Your task to perform on an android device: find snoozed emails in the gmail app Image 0: 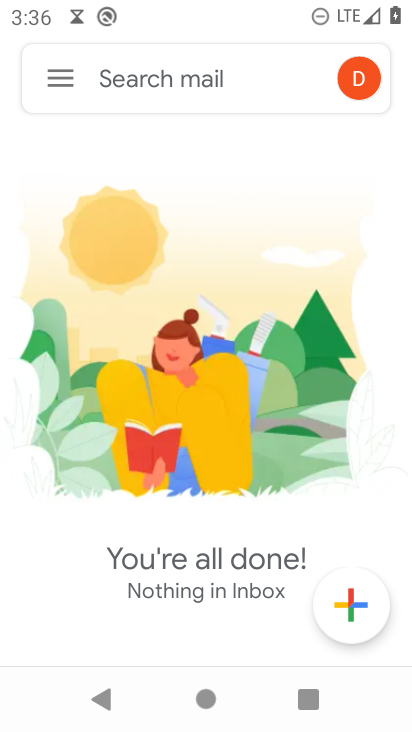
Step 0: press home button
Your task to perform on an android device: find snoozed emails in the gmail app Image 1: 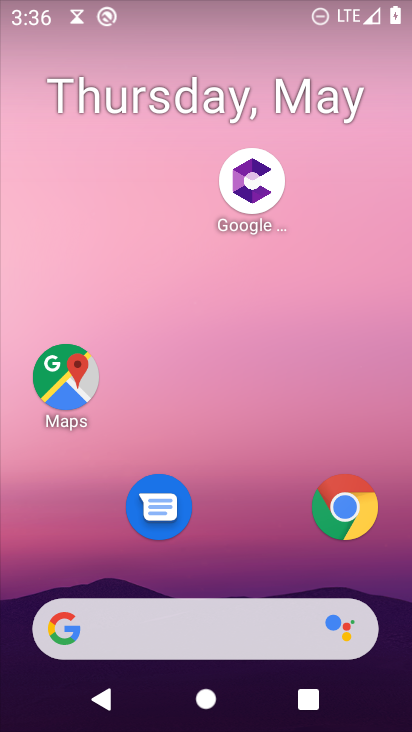
Step 1: drag from (209, 558) to (313, 9)
Your task to perform on an android device: find snoozed emails in the gmail app Image 2: 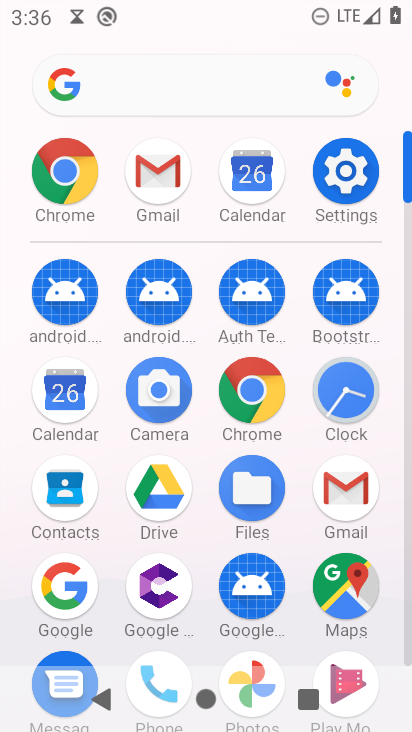
Step 2: click (159, 195)
Your task to perform on an android device: find snoozed emails in the gmail app Image 3: 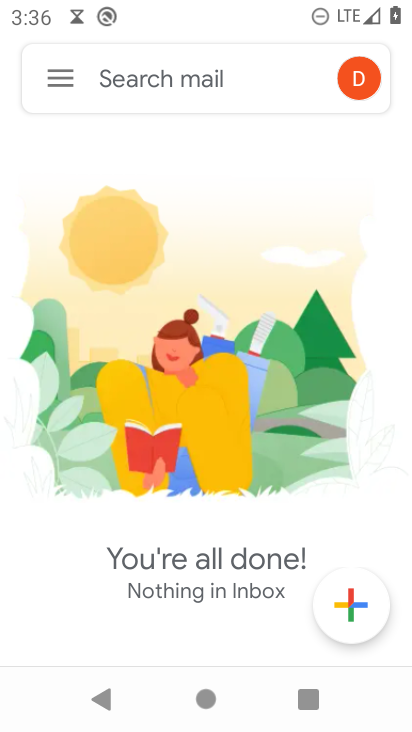
Step 3: click (76, 95)
Your task to perform on an android device: find snoozed emails in the gmail app Image 4: 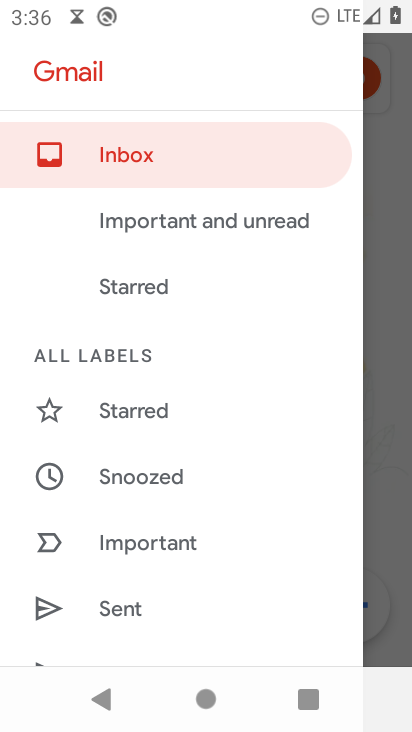
Step 4: click (115, 479)
Your task to perform on an android device: find snoozed emails in the gmail app Image 5: 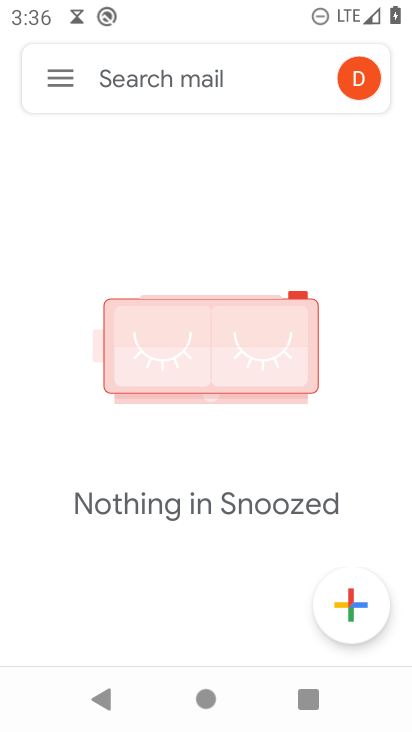
Step 5: task complete